Your task to perform on an android device: change the clock display to show seconds Image 0: 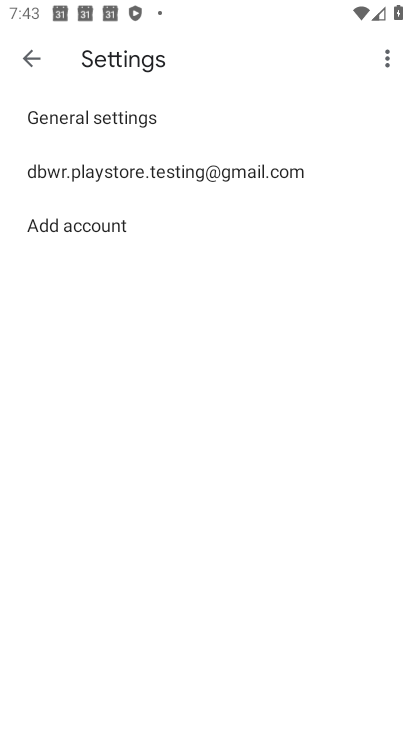
Step 0: press home button
Your task to perform on an android device: change the clock display to show seconds Image 1: 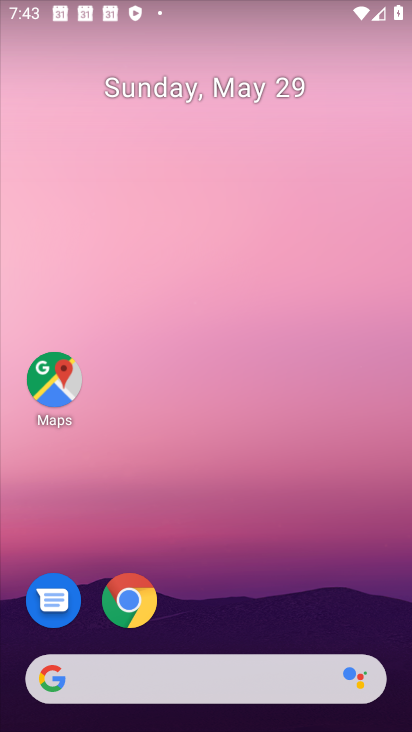
Step 1: drag from (314, 592) to (289, 142)
Your task to perform on an android device: change the clock display to show seconds Image 2: 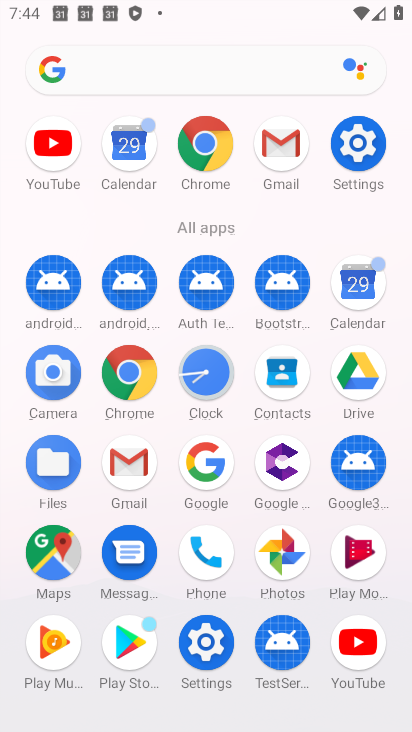
Step 2: click (203, 383)
Your task to perform on an android device: change the clock display to show seconds Image 3: 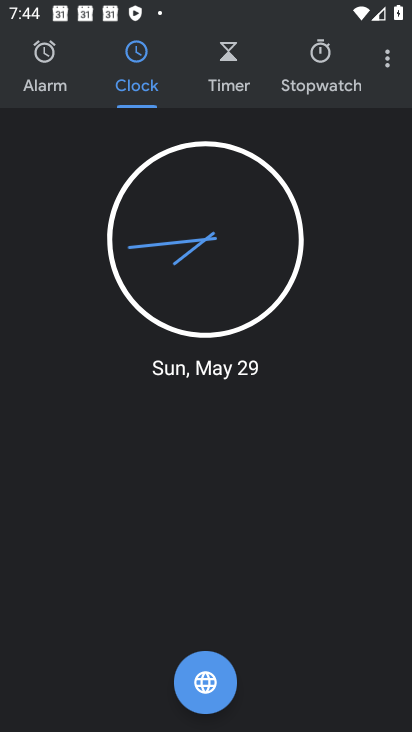
Step 3: click (379, 51)
Your task to perform on an android device: change the clock display to show seconds Image 4: 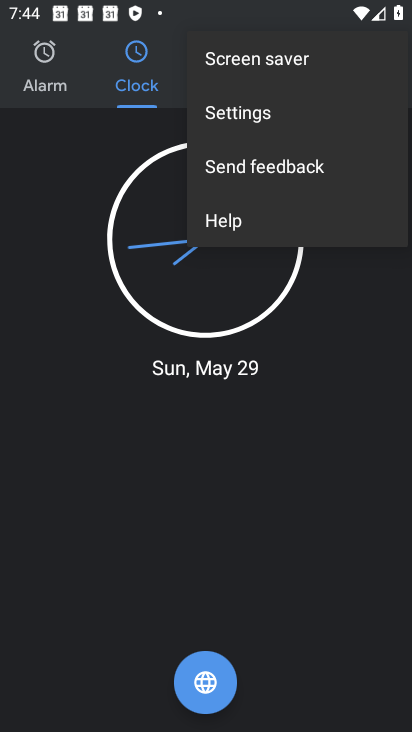
Step 4: click (313, 122)
Your task to perform on an android device: change the clock display to show seconds Image 5: 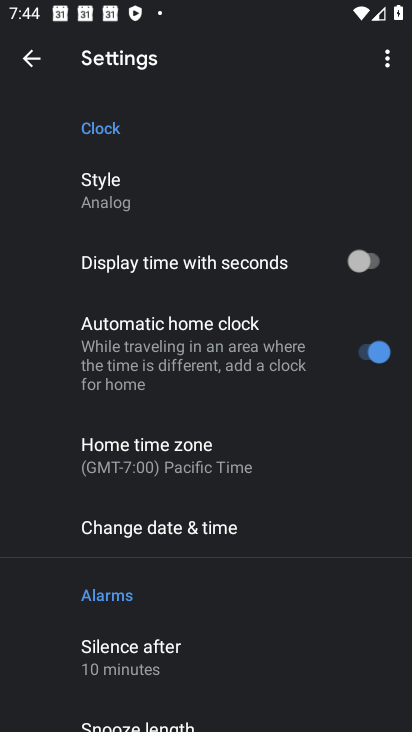
Step 5: click (356, 264)
Your task to perform on an android device: change the clock display to show seconds Image 6: 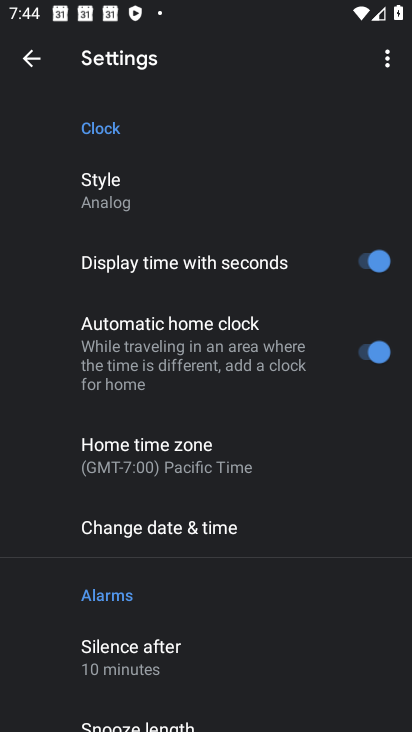
Step 6: task complete